Your task to perform on an android device: Open calendar and show me the second week of next month Image 0: 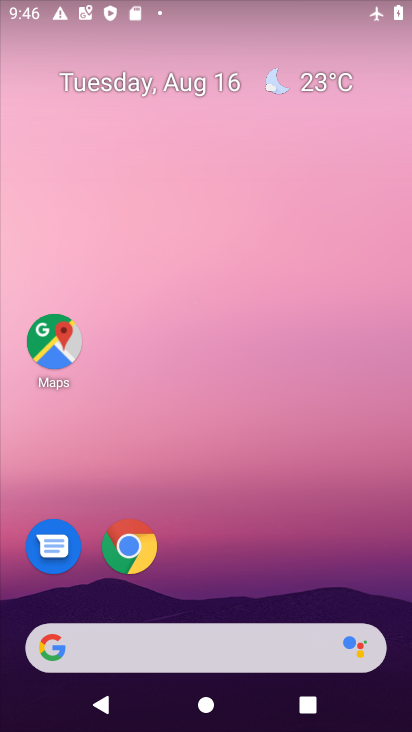
Step 0: drag from (252, 555) to (269, 0)
Your task to perform on an android device: Open calendar and show me the second week of next month Image 1: 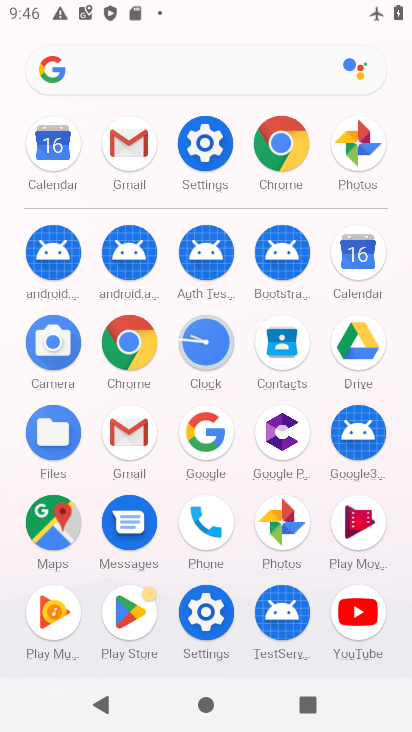
Step 1: click (355, 252)
Your task to perform on an android device: Open calendar and show me the second week of next month Image 2: 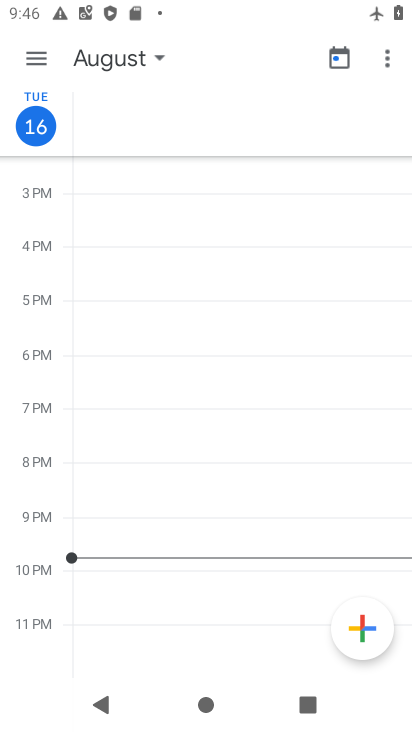
Step 2: click (41, 60)
Your task to perform on an android device: Open calendar and show me the second week of next month Image 3: 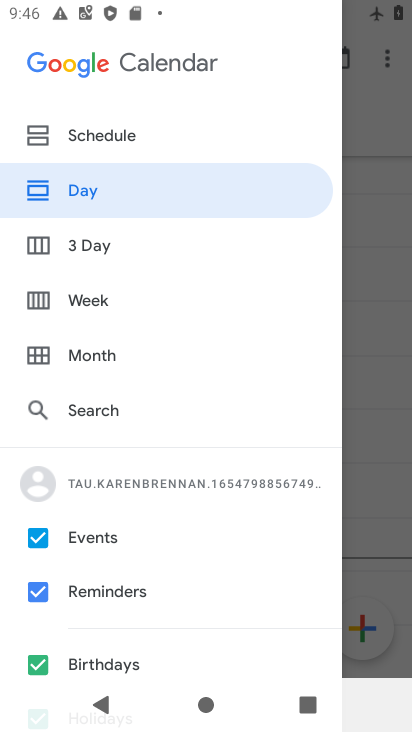
Step 3: click (33, 352)
Your task to perform on an android device: Open calendar and show me the second week of next month Image 4: 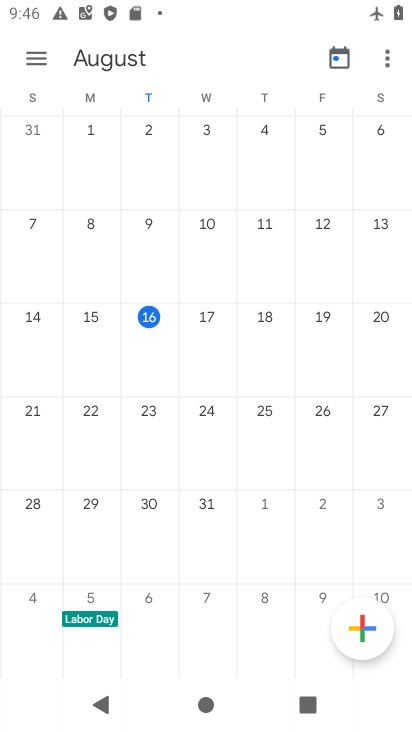
Step 4: drag from (380, 348) to (5, 395)
Your task to perform on an android device: Open calendar and show me the second week of next month Image 5: 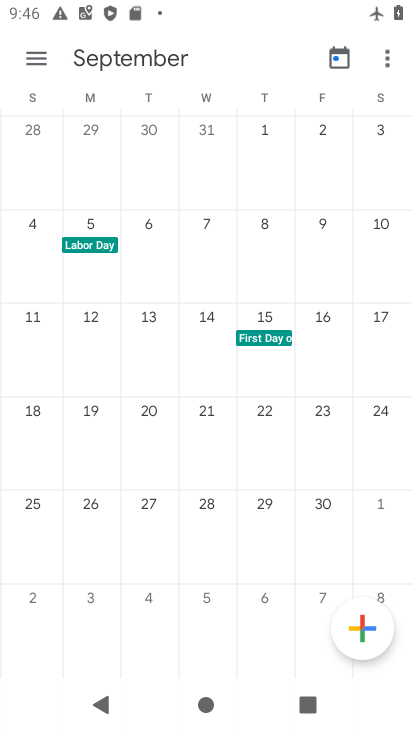
Step 5: click (34, 313)
Your task to perform on an android device: Open calendar and show me the second week of next month Image 6: 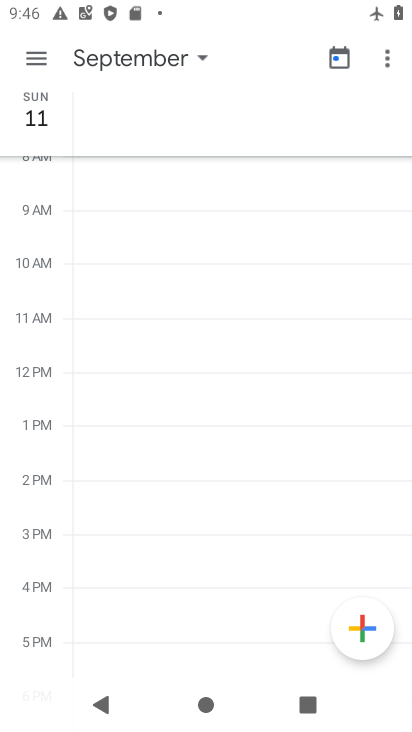
Step 6: click (32, 52)
Your task to perform on an android device: Open calendar and show me the second week of next month Image 7: 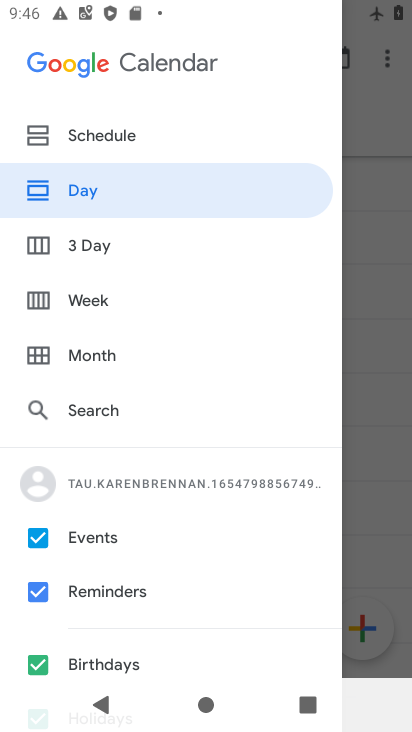
Step 7: click (37, 297)
Your task to perform on an android device: Open calendar and show me the second week of next month Image 8: 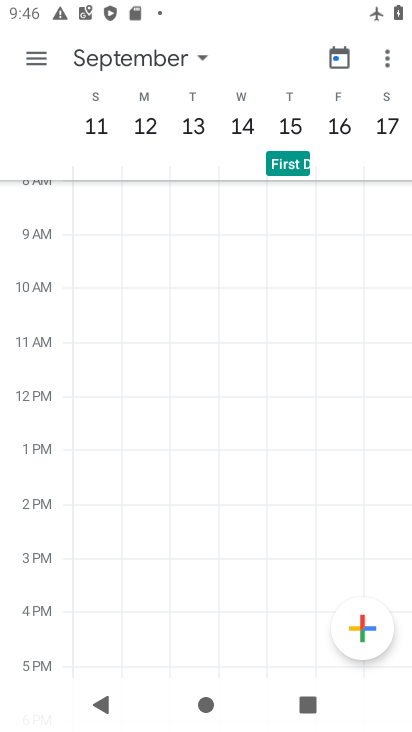
Step 8: task complete